Your task to perform on an android device: change your default location settings in chrome Image 0: 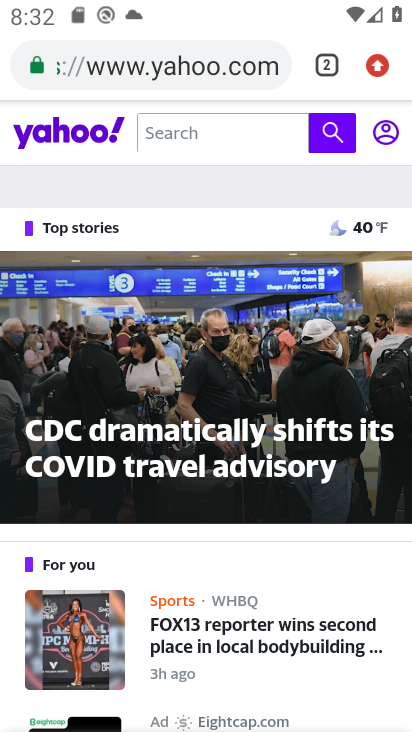
Step 0: click (377, 74)
Your task to perform on an android device: change your default location settings in chrome Image 1: 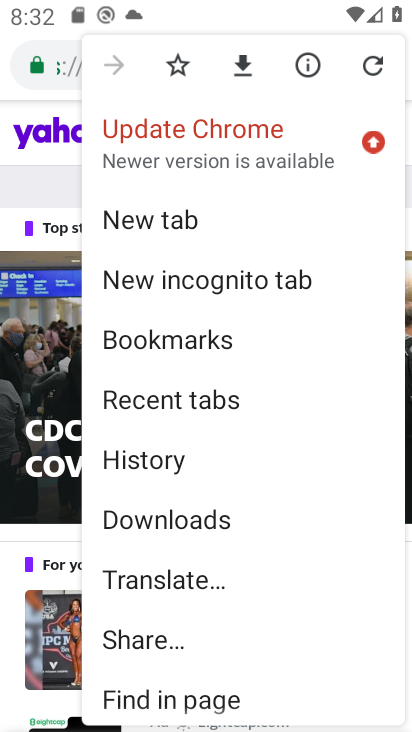
Step 1: drag from (248, 589) to (203, 139)
Your task to perform on an android device: change your default location settings in chrome Image 2: 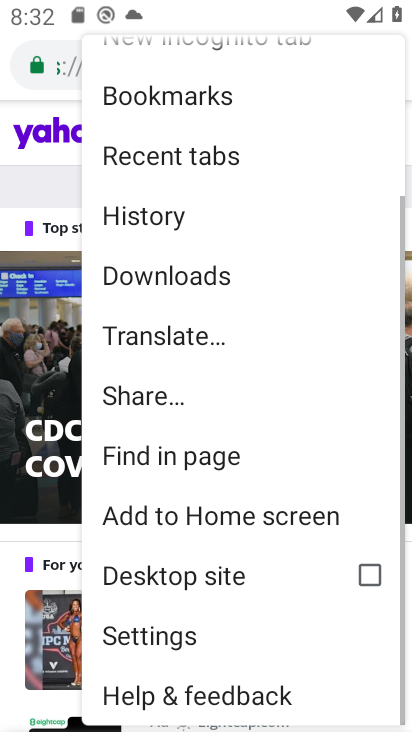
Step 2: click (197, 630)
Your task to perform on an android device: change your default location settings in chrome Image 3: 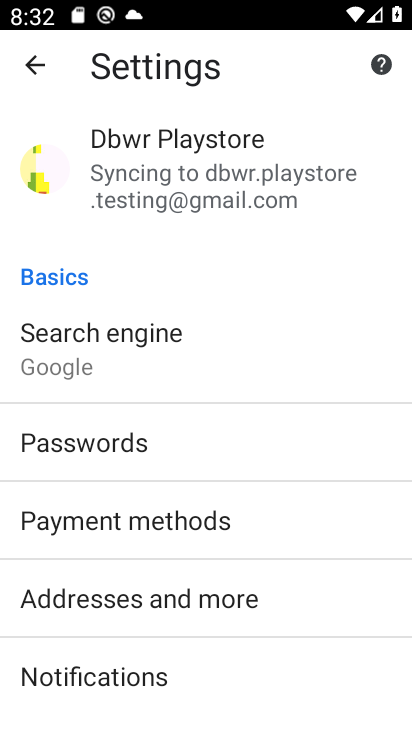
Step 3: click (182, 619)
Your task to perform on an android device: change your default location settings in chrome Image 4: 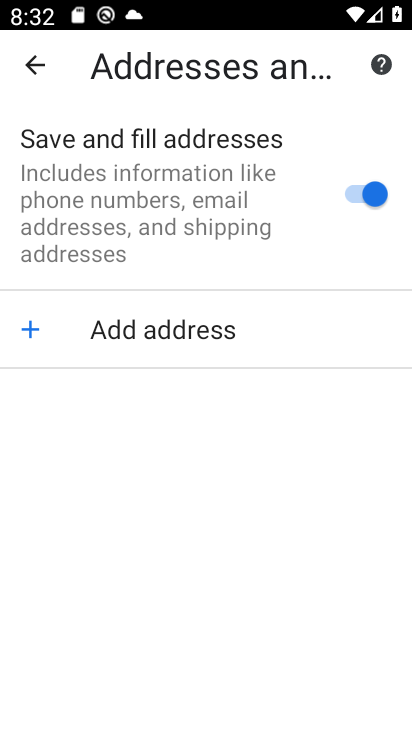
Step 4: task complete